Your task to perform on an android device: turn notification dots off Image 0: 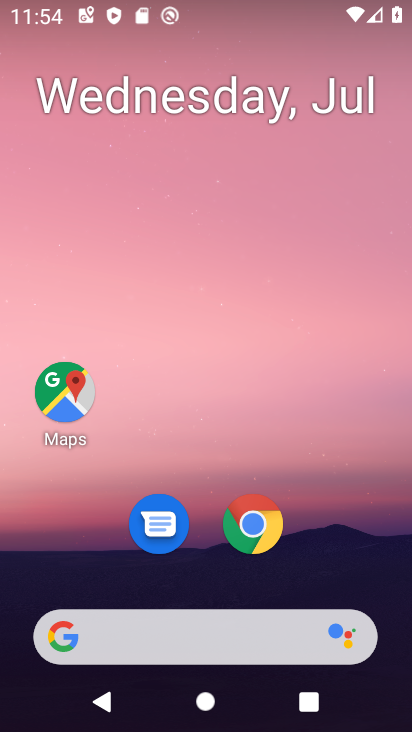
Step 0: drag from (220, 645) to (302, 276)
Your task to perform on an android device: turn notification dots off Image 1: 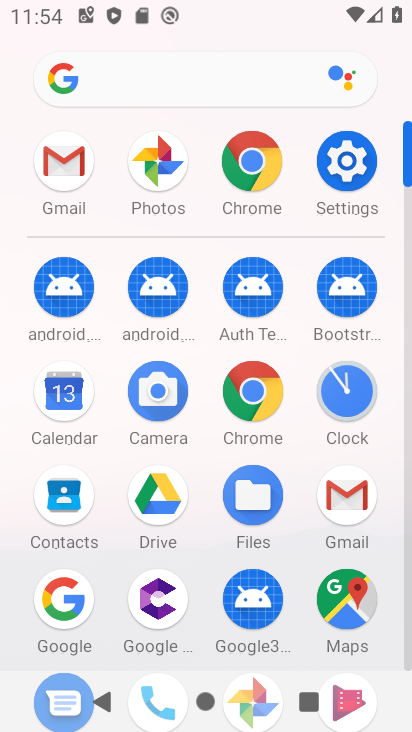
Step 1: click (345, 160)
Your task to perform on an android device: turn notification dots off Image 2: 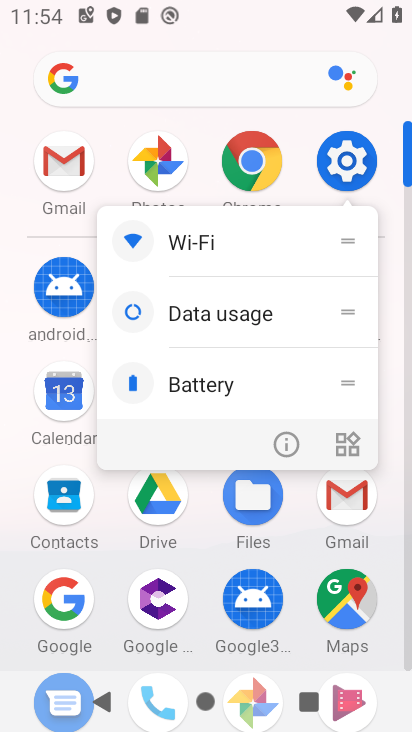
Step 2: click (339, 170)
Your task to perform on an android device: turn notification dots off Image 3: 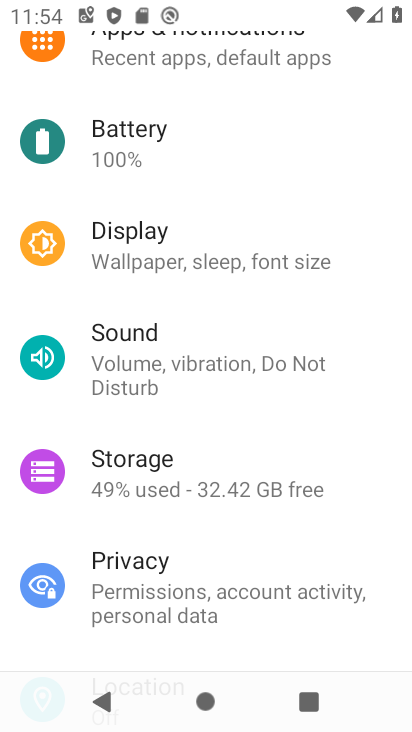
Step 3: drag from (226, 170) to (209, 582)
Your task to perform on an android device: turn notification dots off Image 4: 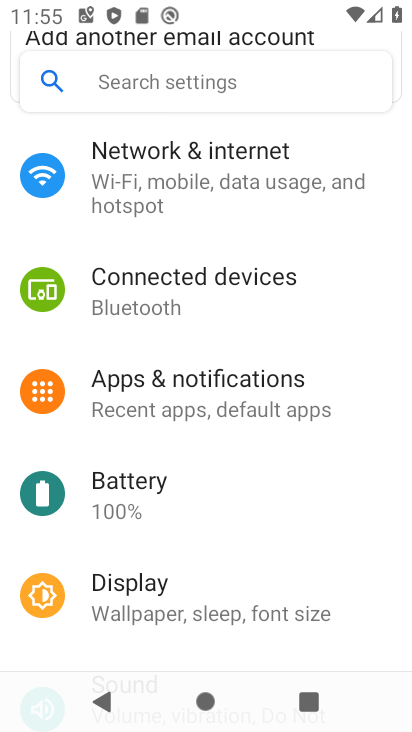
Step 4: click (212, 384)
Your task to perform on an android device: turn notification dots off Image 5: 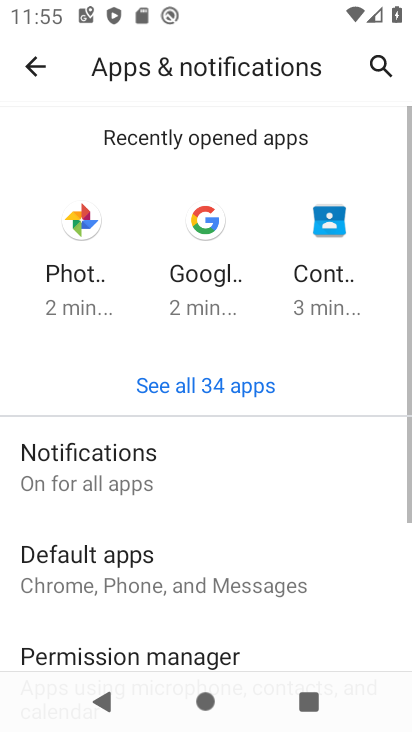
Step 5: click (136, 463)
Your task to perform on an android device: turn notification dots off Image 6: 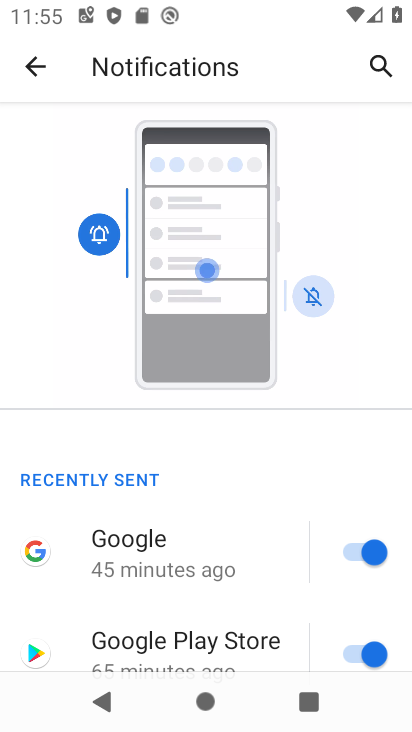
Step 6: drag from (234, 621) to (343, 135)
Your task to perform on an android device: turn notification dots off Image 7: 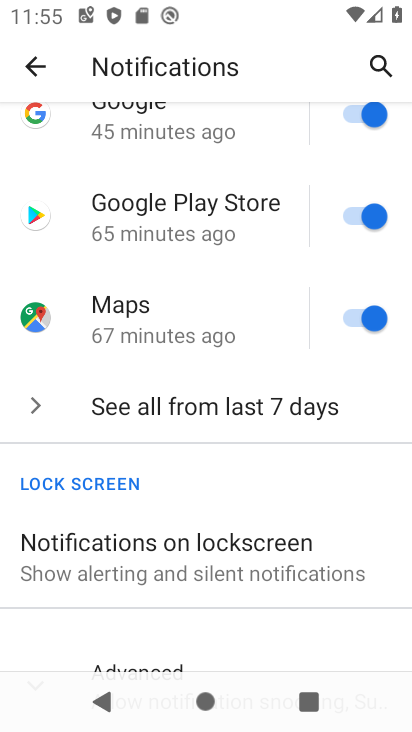
Step 7: drag from (235, 504) to (316, 165)
Your task to perform on an android device: turn notification dots off Image 8: 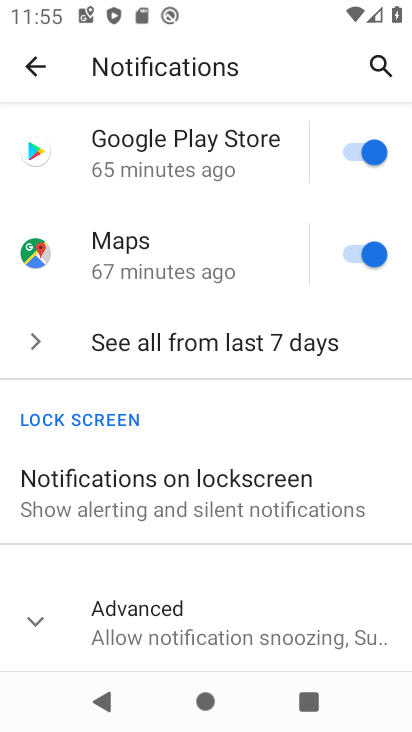
Step 8: click (173, 619)
Your task to perform on an android device: turn notification dots off Image 9: 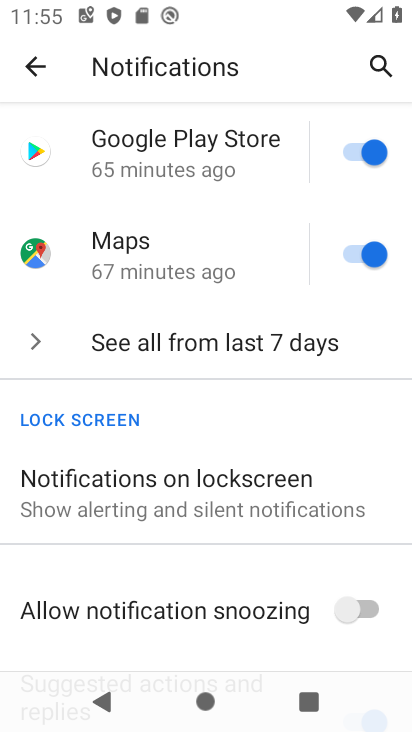
Step 9: drag from (227, 589) to (286, 154)
Your task to perform on an android device: turn notification dots off Image 10: 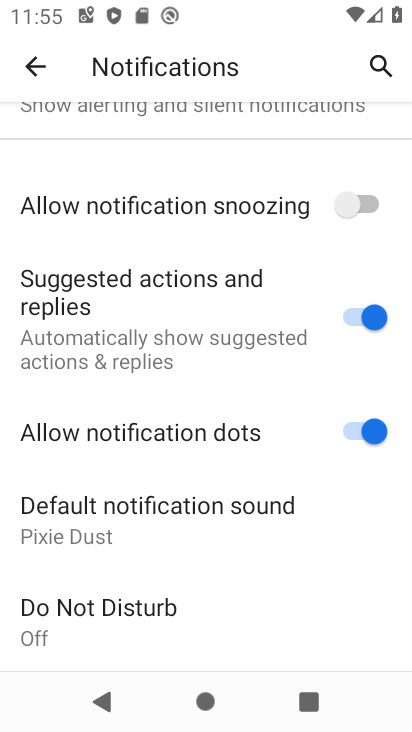
Step 10: click (357, 429)
Your task to perform on an android device: turn notification dots off Image 11: 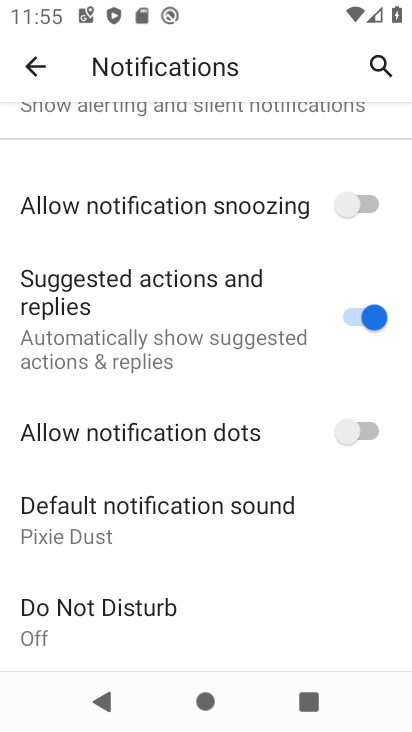
Step 11: task complete